Your task to perform on an android device: see creations saved in the google photos Image 0: 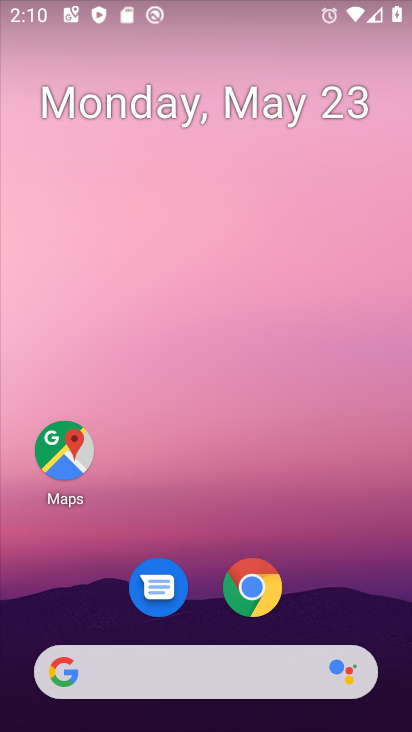
Step 0: drag from (353, 606) to (326, 132)
Your task to perform on an android device: see creations saved in the google photos Image 1: 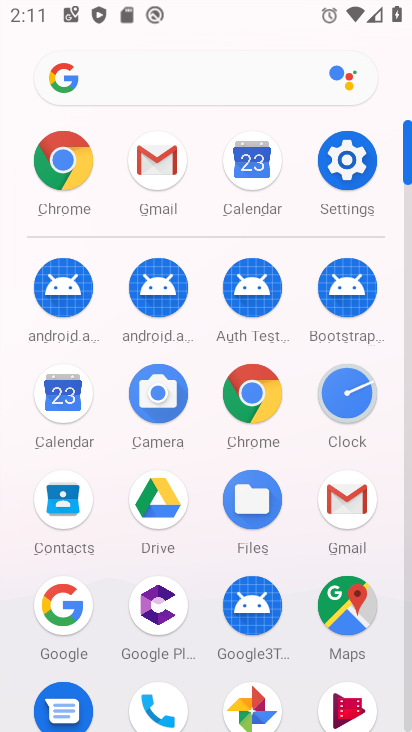
Step 1: click (247, 691)
Your task to perform on an android device: see creations saved in the google photos Image 2: 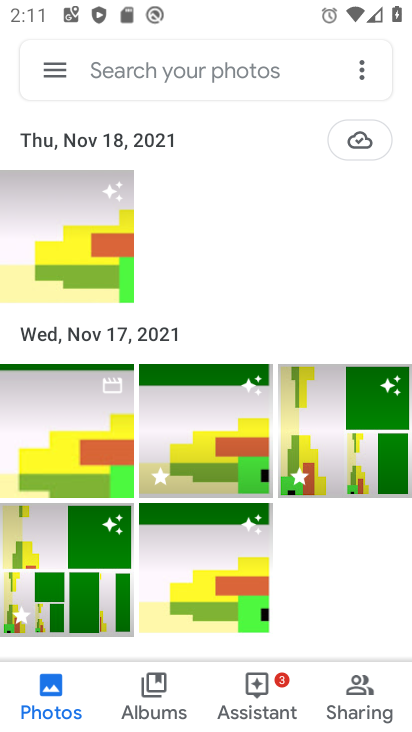
Step 2: click (54, 65)
Your task to perform on an android device: see creations saved in the google photos Image 3: 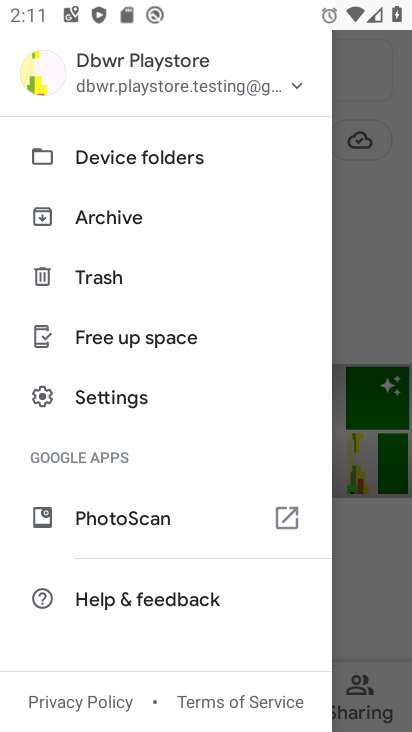
Step 3: click (83, 218)
Your task to perform on an android device: see creations saved in the google photos Image 4: 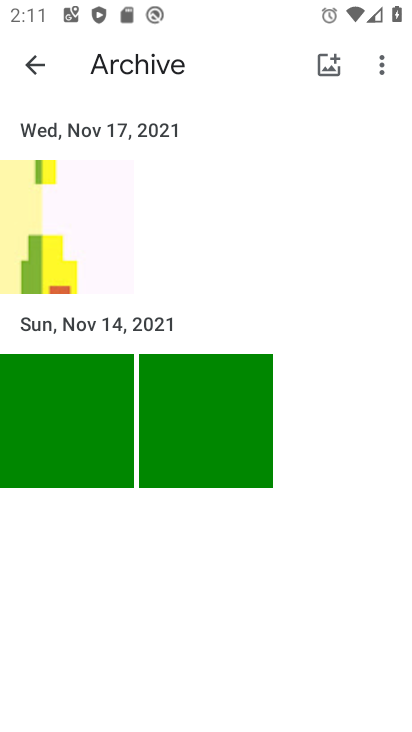
Step 4: task complete